Your task to perform on an android device: Open Chrome and go to the settings page Image 0: 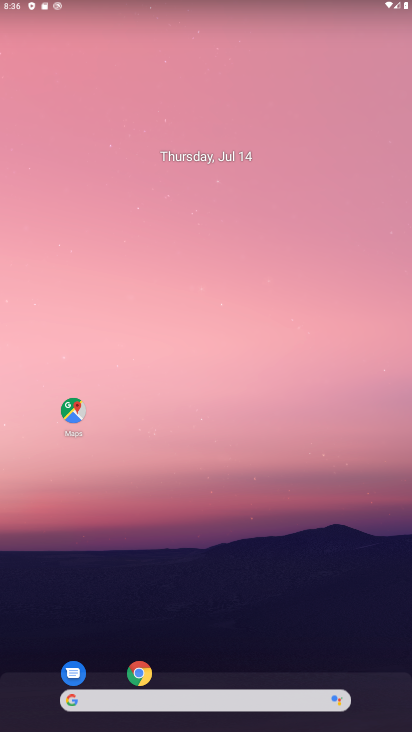
Step 0: click (138, 674)
Your task to perform on an android device: Open Chrome and go to the settings page Image 1: 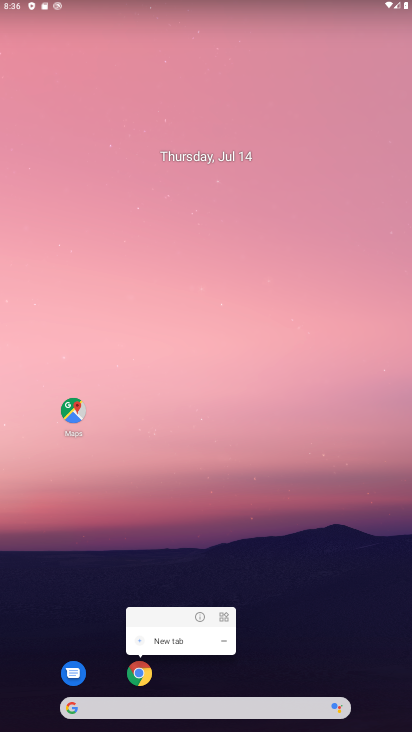
Step 1: click (137, 673)
Your task to perform on an android device: Open Chrome and go to the settings page Image 2: 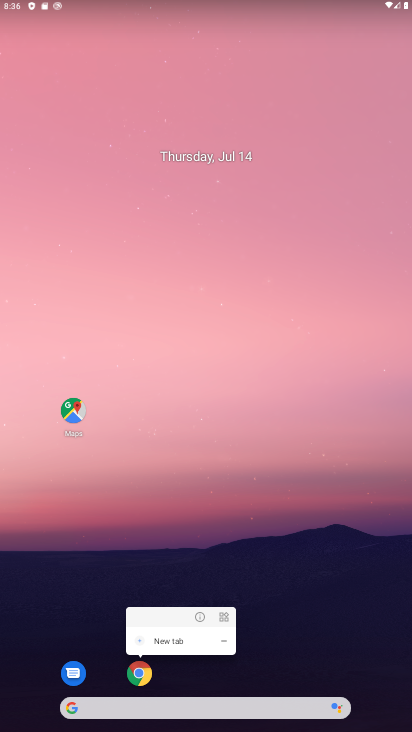
Step 2: click (136, 672)
Your task to perform on an android device: Open Chrome and go to the settings page Image 3: 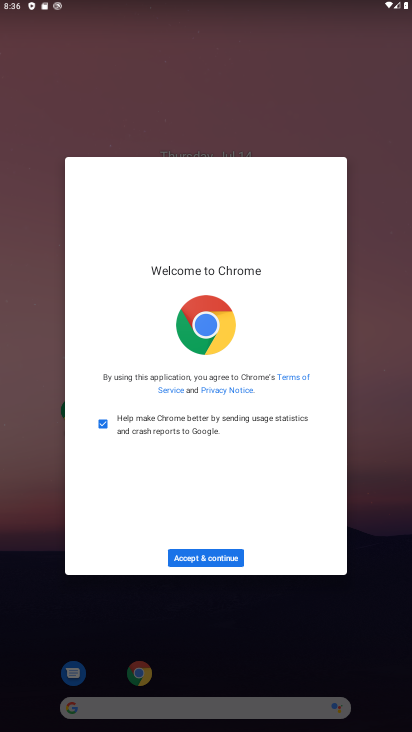
Step 3: click (194, 561)
Your task to perform on an android device: Open Chrome and go to the settings page Image 4: 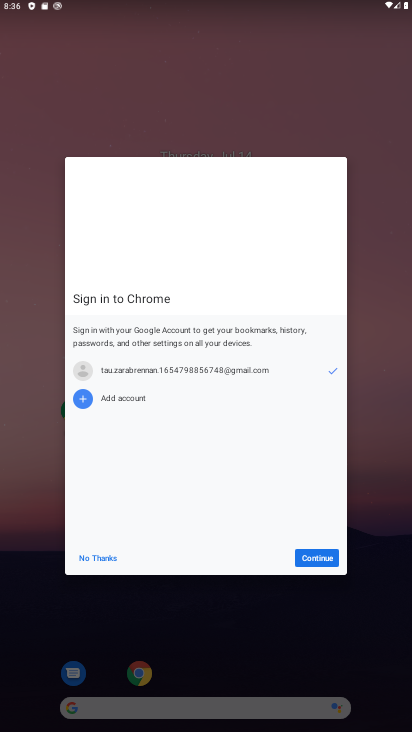
Step 4: click (303, 571)
Your task to perform on an android device: Open Chrome and go to the settings page Image 5: 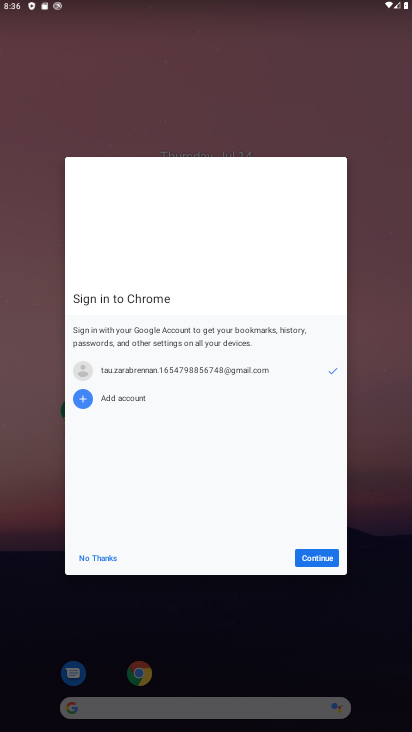
Step 5: click (317, 560)
Your task to perform on an android device: Open Chrome and go to the settings page Image 6: 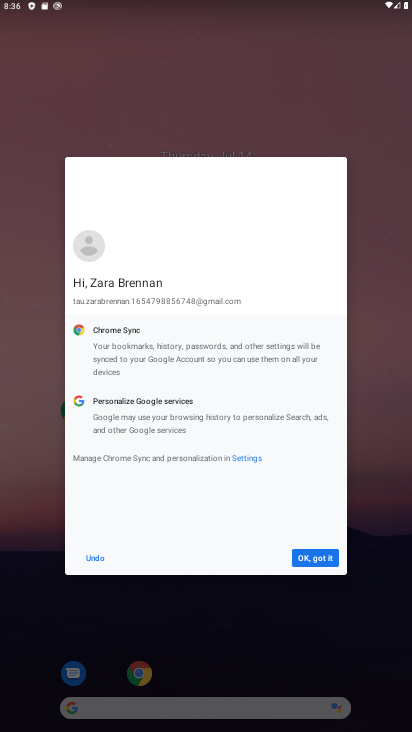
Step 6: click (309, 566)
Your task to perform on an android device: Open Chrome and go to the settings page Image 7: 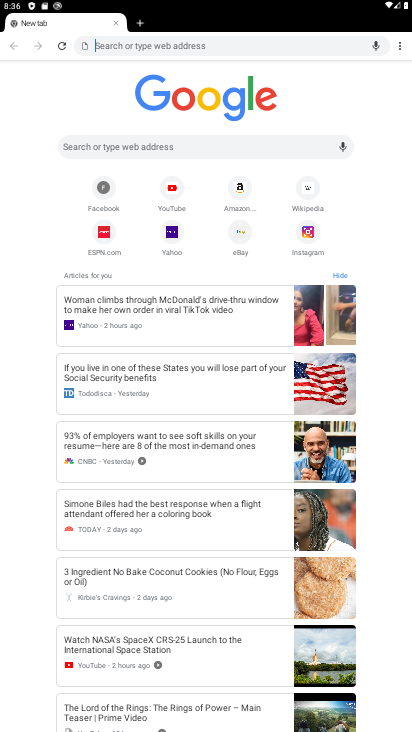
Step 7: task complete